Your task to perform on an android device: turn on data saver in the chrome app Image 0: 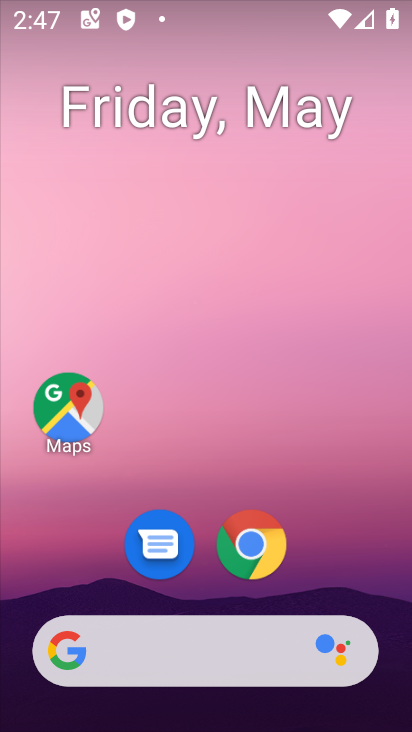
Step 0: click (246, 557)
Your task to perform on an android device: turn on data saver in the chrome app Image 1: 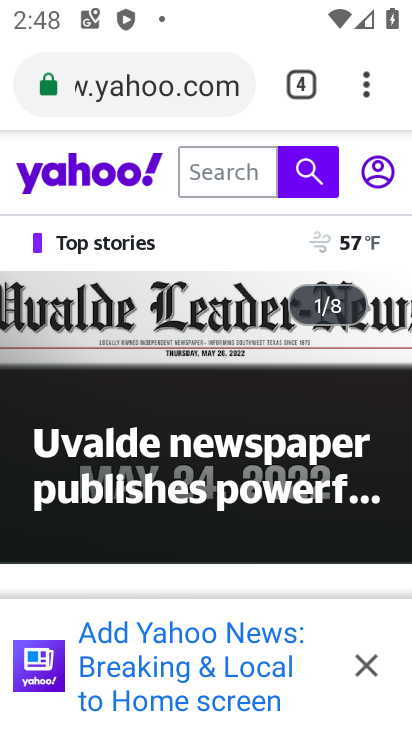
Step 1: click (361, 85)
Your task to perform on an android device: turn on data saver in the chrome app Image 2: 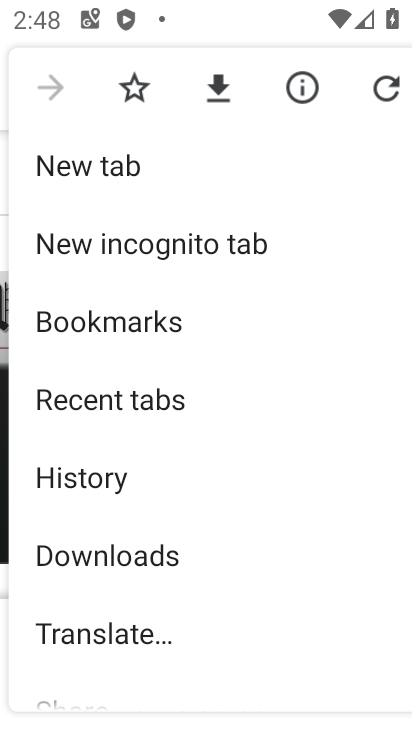
Step 2: drag from (225, 536) to (234, 319)
Your task to perform on an android device: turn on data saver in the chrome app Image 3: 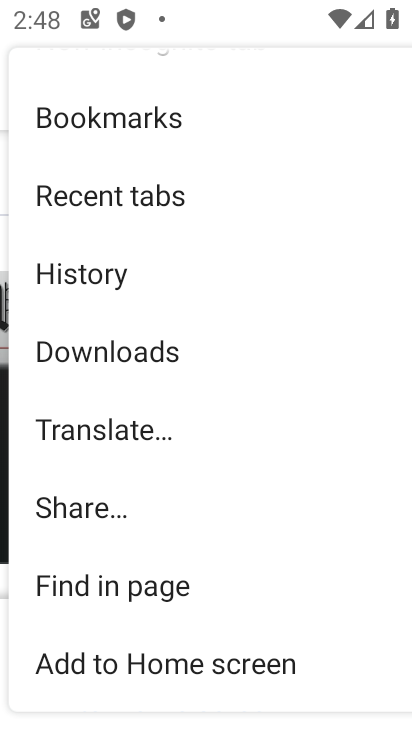
Step 3: drag from (208, 546) to (227, 379)
Your task to perform on an android device: turn on data saver in the chrome app Image 4: 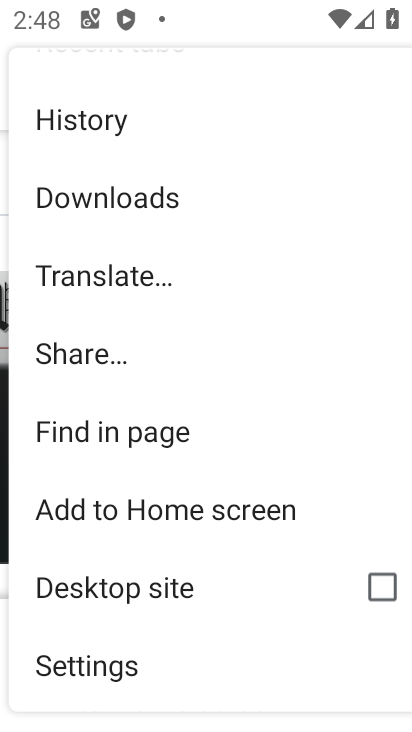
Step 4: drag from (207, 514) to (209, 344)
Your task to perform on an android device: turn on data saver in the chrome app Image 5: 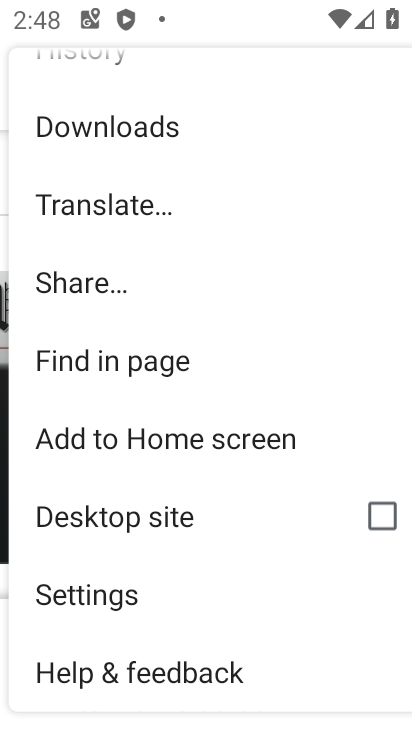
Step 5: click (156, 587)
Your task to perform on an android device: turn on data saver in the chrome app Image 6: 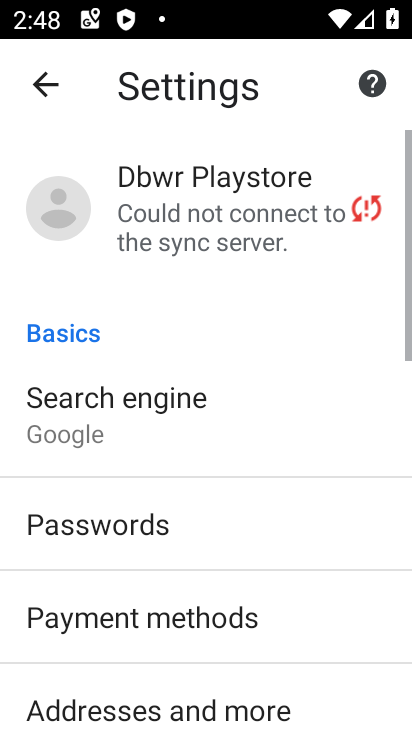
Step 6: drag from (181, 621) to (230, 348)
Your task to perform on an android device: turn on data saver in the chrome app Image 7: 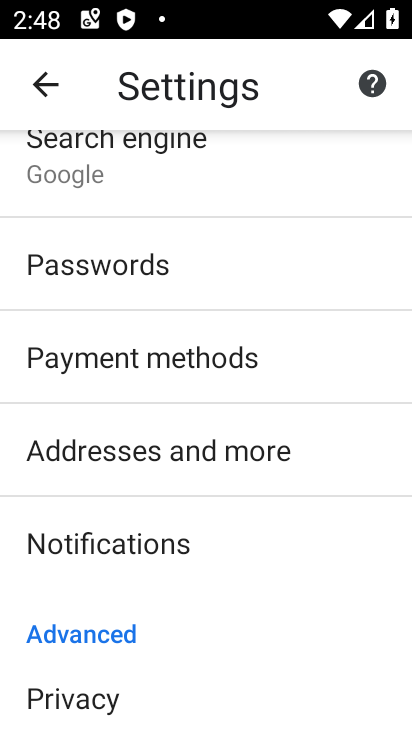
Step 7: drag from (208, 606) to (216, 416)
Your task to perform on an android device: turn on data saver in the chrome app Image 8: 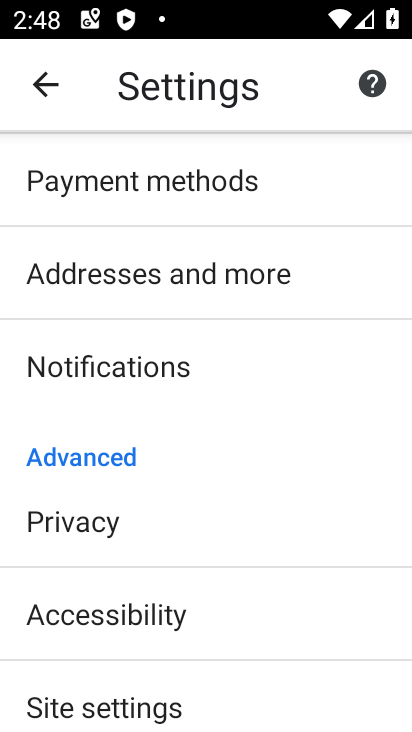
Step 8: drag from (220, 567) to (229, 380)
Your task to perform on an android device: turn on data saver in the chrome app Image 9: 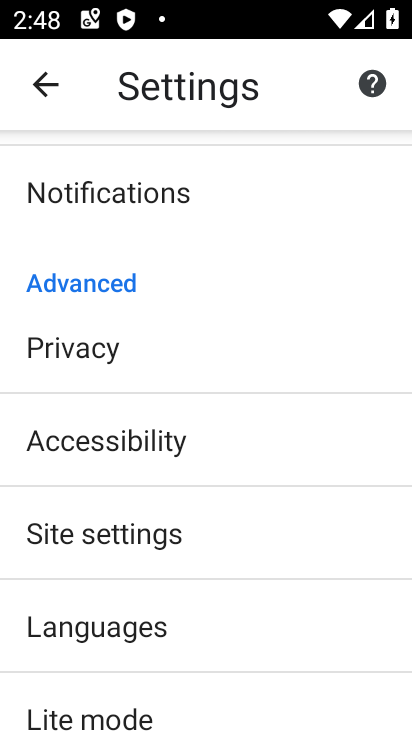
Step 9: drag from (192, 607) to (233, 415)
Your task to perform on an android device: turn on data saver in the chrome app Image 10: 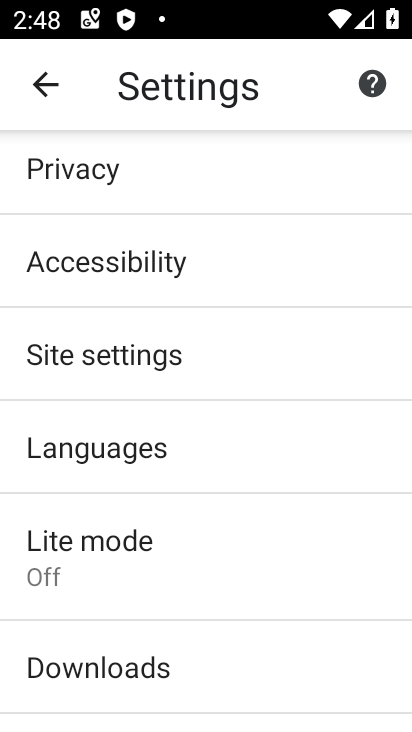
Step 10: click (216, 549)
Your task to perform on an android device: turn on data saver in the chrome app Image 11: 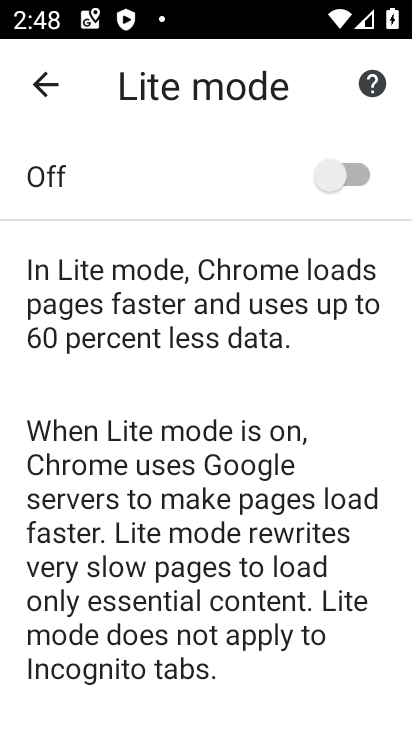
Step 11: click (361, 171)
Your task to perform on an android device: turn on data saver in the chrome app Image 12: 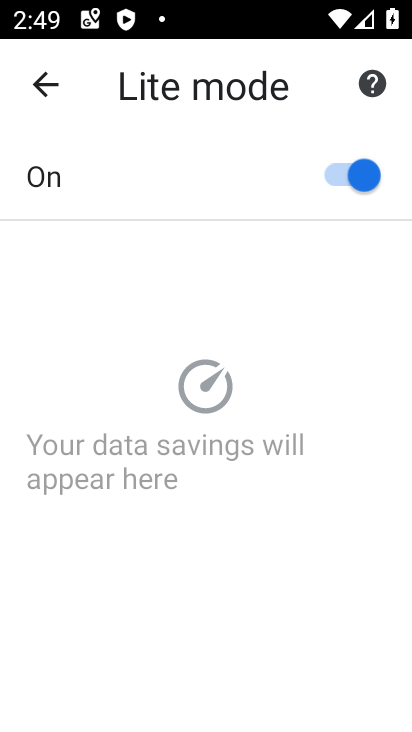
Step 12: task complete